Your task to perform on an android device: snooze an email in the gmail app Image 0: 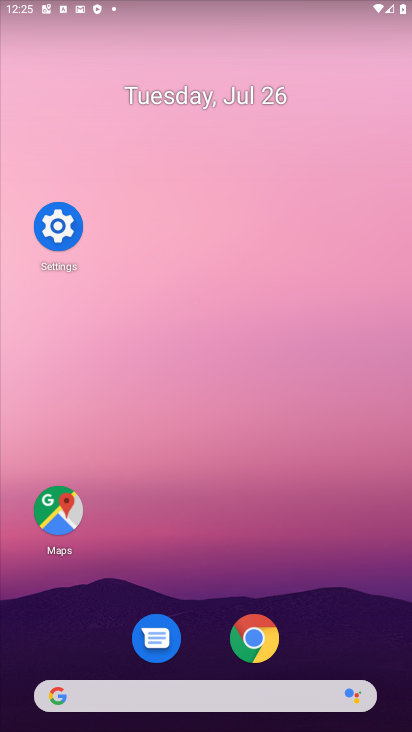
Step 0: drag from (283, 541) to (257, 188)
Your task to perform on an android device: snooze an email in the gmail app Image 1: 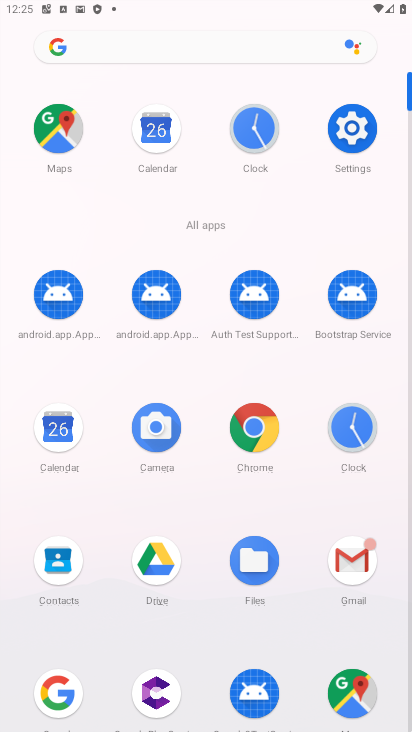
Step 1: click (347, 557)
Your task to perform on an android device: snooze an email in the gmail app Image 2: 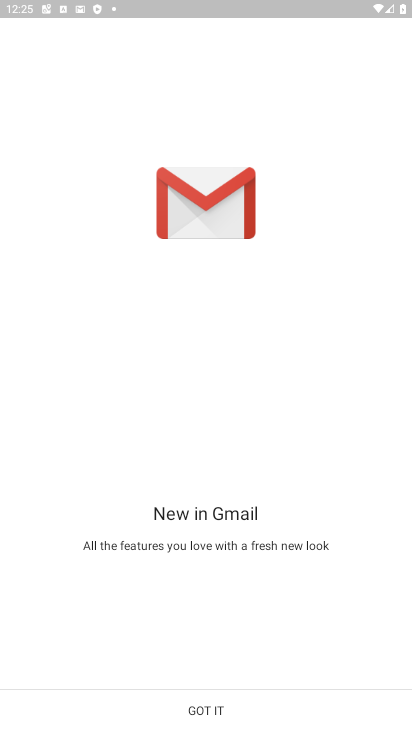
Step 2: click (308, 726)
Your task to perform on an android device: snooze an email in the gmail app Image 3: 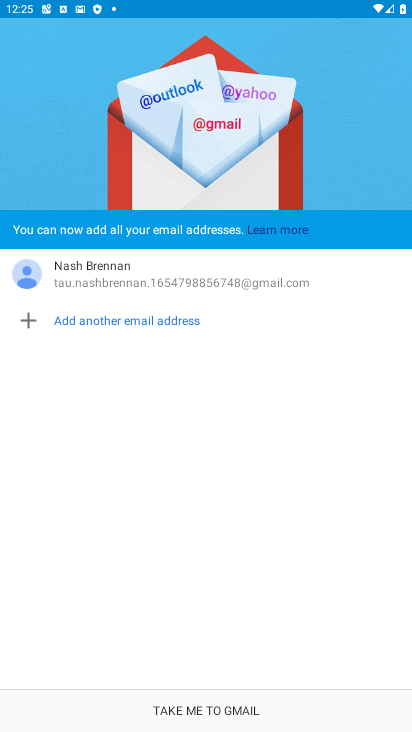
Step 3: click (302, 689)
Your task to perform on an android device: snooze an email in the gmail app Image 4: 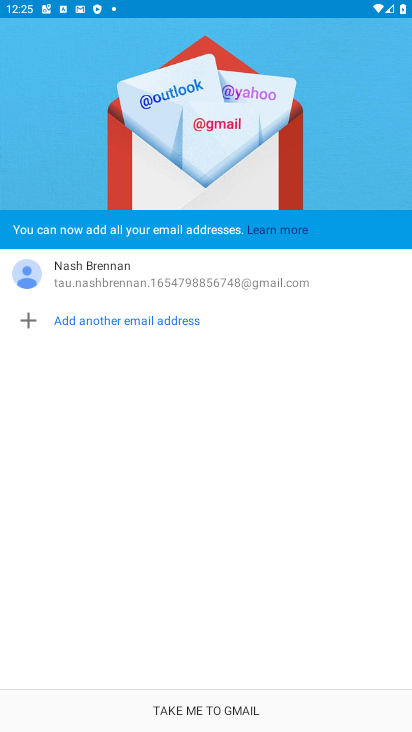
Step 4: click (311, 709)
Your task to perform on an android device: snooze an email in the gmail app Image 5: 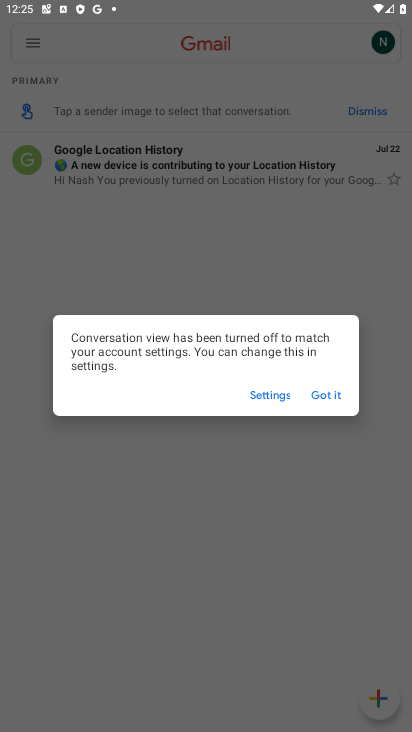
Step 5: click (327, 401)
Your task to perform on an android device: snooze an email in the gmail app Image 6: 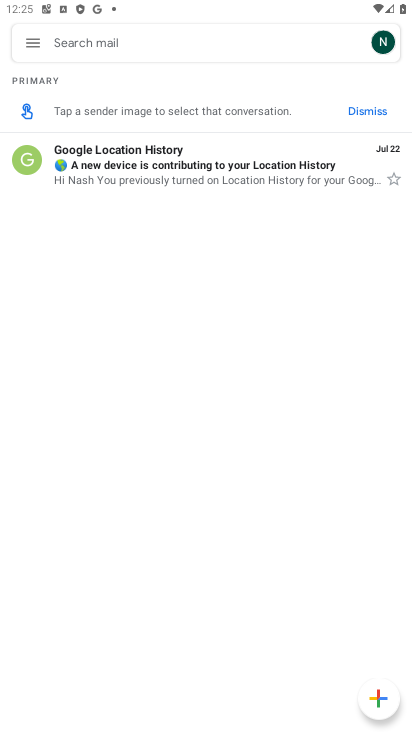
Step 6: click (176, 147)
Your task to perform on an android device: snooze an email in the gmail app Image 7: 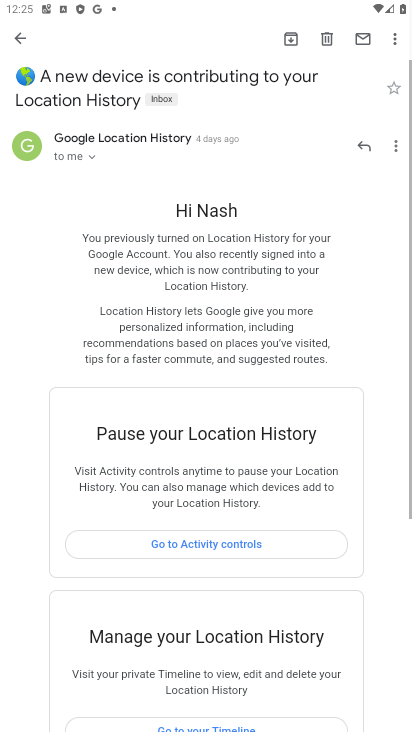
Step 7: click (396, 39)
Your task to perform on an android device: snooze an email in the gmail app Image 8: 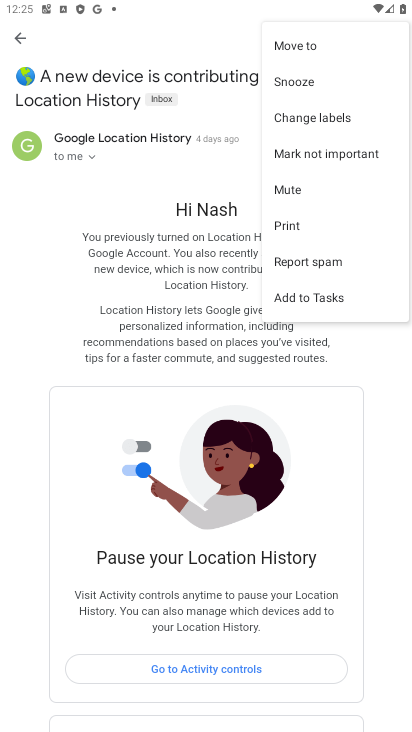
Step 8: click (306, 82)
Your task to perform on an android device: snooze an email in the gmail app Image 9: 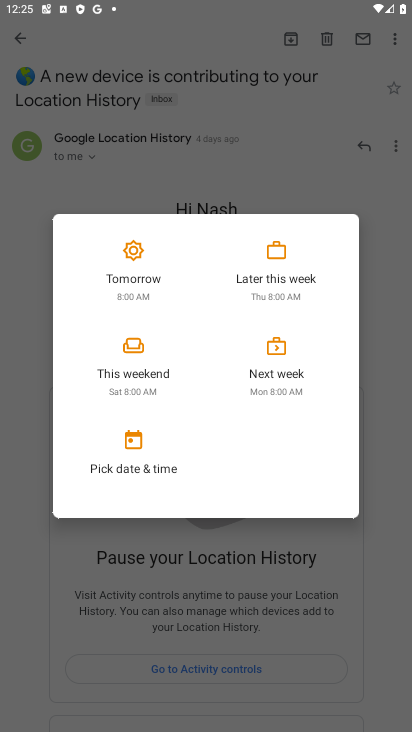
Step 9: click (147, 276)
Your task to perform on an android device: snooze an email in the gmail app Image 10: 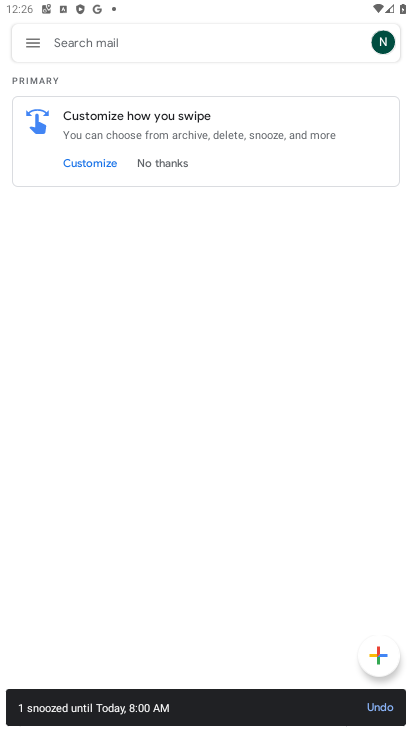
Step 10: task complete